Your task to perform on an android device: turn on sleep mode Image 0: 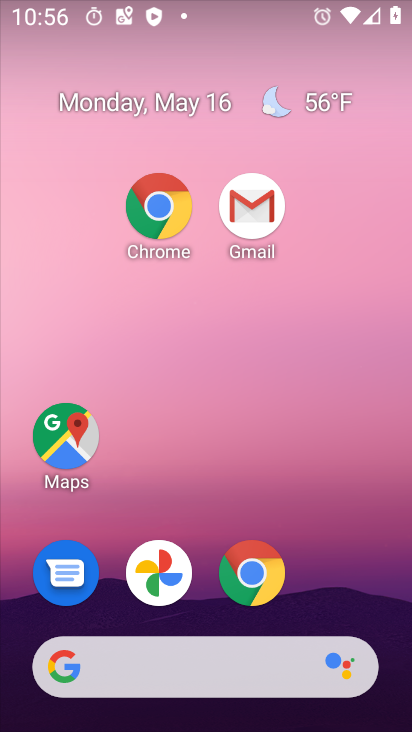
Step 0: drag from (340, 545) to (220, 185)
Your task to perform on an android device: turn on sleep mode Image 1: 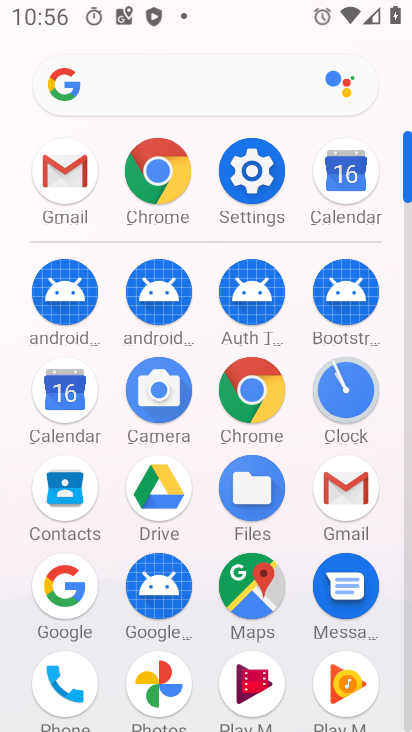
Step 1: drag from (343, 540) to (155, 88)
Your task to perform on an android device: turn on sleep mode Image 2: 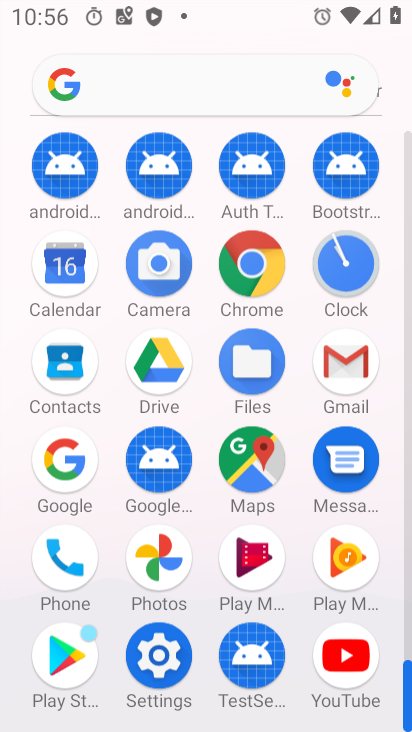
Step 2: click (234, 107)
Your task to perform on an android device: turn on sleep mode Image 3: 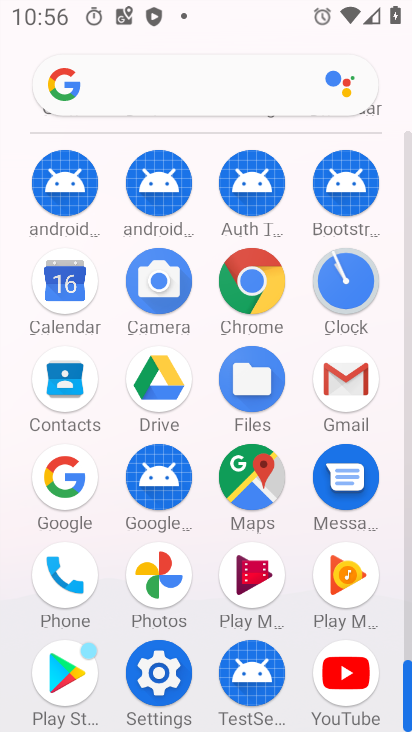
Step 3: drag from (363, 540) to (229, 110)
Your task to perform on an android device: turn on sleep mode Image 4: 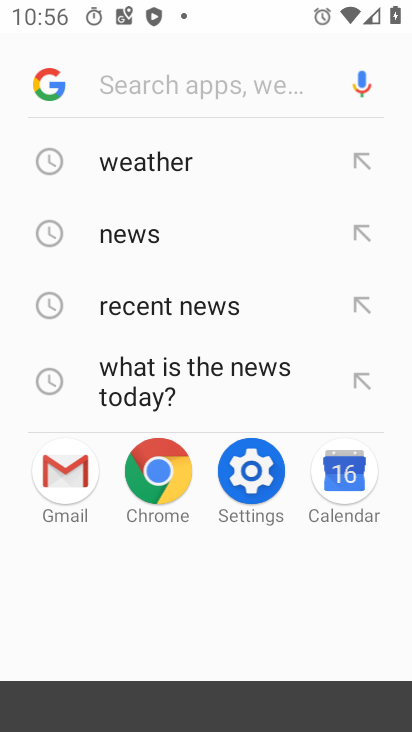
Step 4: drag from (309, 501) to (225, 145)
Your task to perform on an android device: turn on sleep mode Image 5: 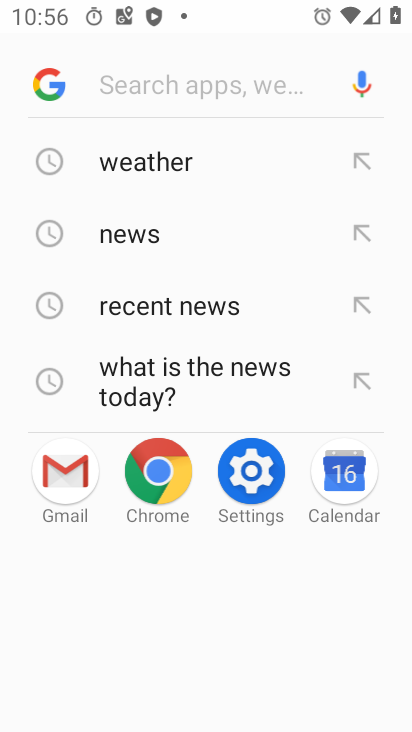
Step 5: drag from (323, 515) to (243, 216)
Your task to perform on an android device: turn on sleep mode Image 6: 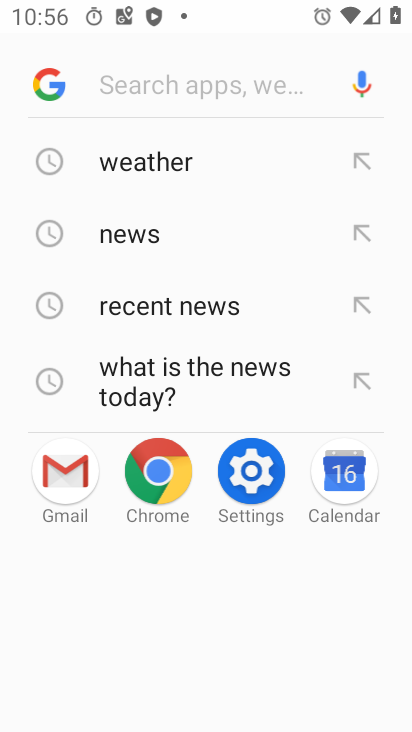
Step 6: press back button
Your task to perform on an android device: turn on sleep mode Image 7: 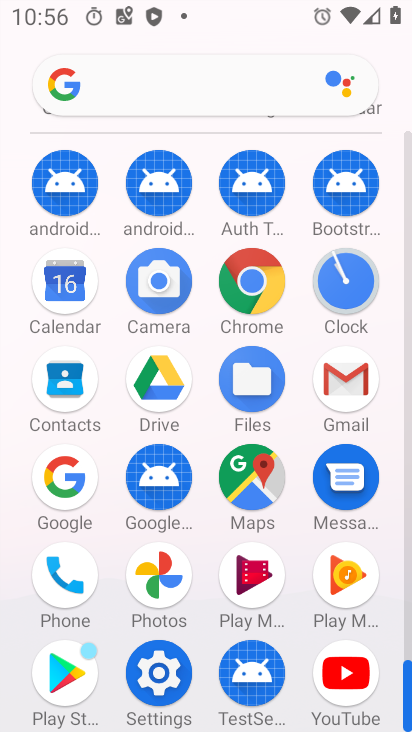
Step 7: press home button
Your task to perform on an android device: turn on sleep mode Image 8: 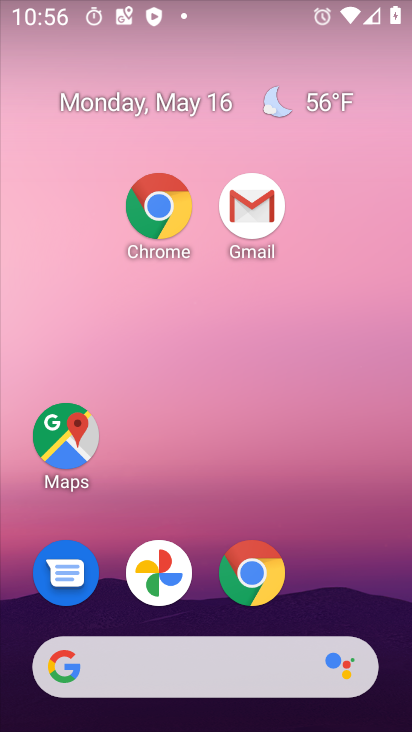
Step 8: drag from (343, 623) to (119, 58)
Your task to perform on an android device: turn on sleep mode Image 9: 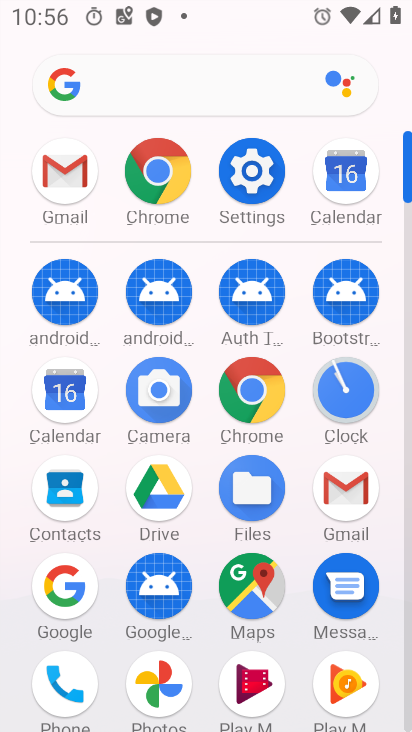
Step 9: click (195, 246)
Your task to perform on an android device: turn on sleep mode Image 10: 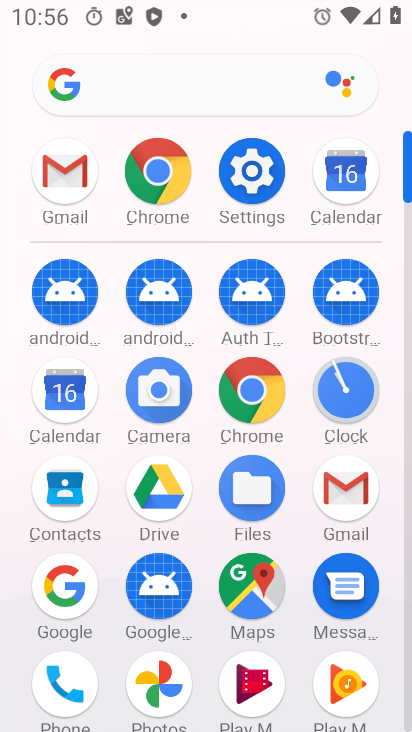
Step 10: click (254, 172)
Your task to perform on an android device: turn on sleep mode Image 11: 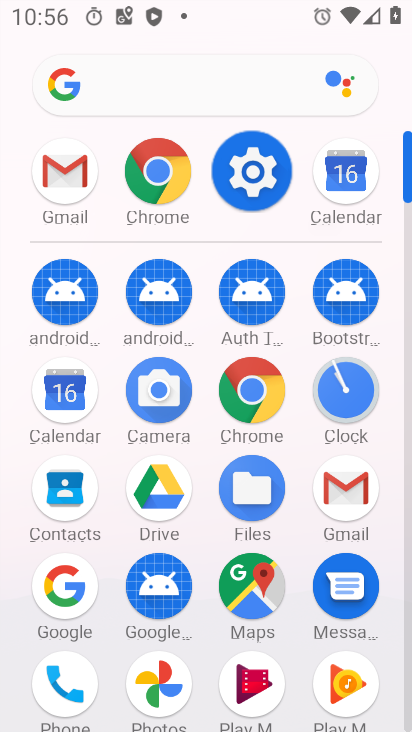
Step 11: click (253, 172)
Your task to perform on an android device: turn on sleep mode Image 12: 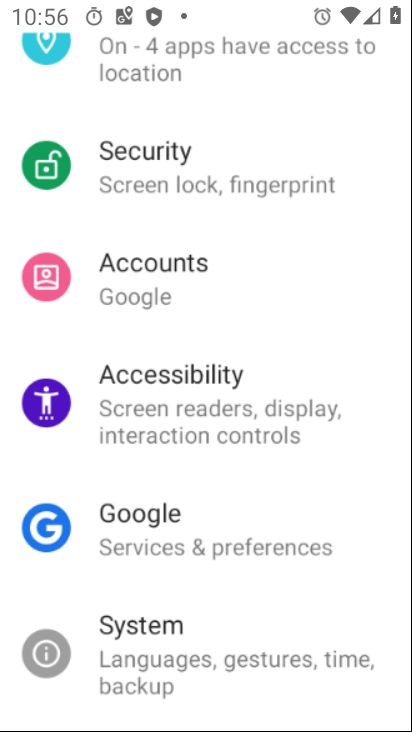
Step 12: click (251, 160)
Your task to perform on an android device: turn on sleep mode Image 13: 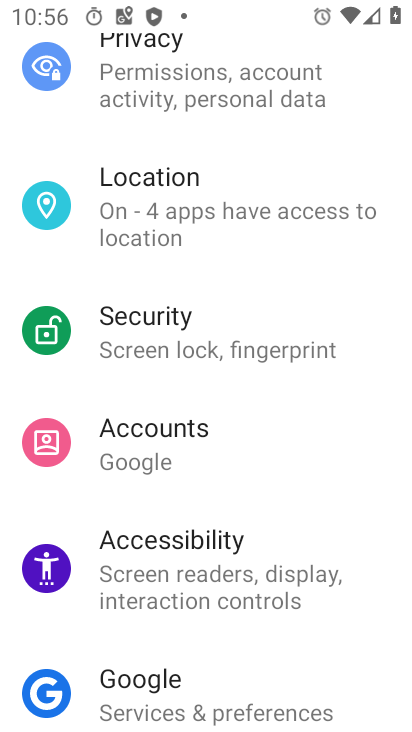
Step 13: drag from (142, 155) to (166, 380)
Your task to perform on an android device: turn on sleep mode Image 14: 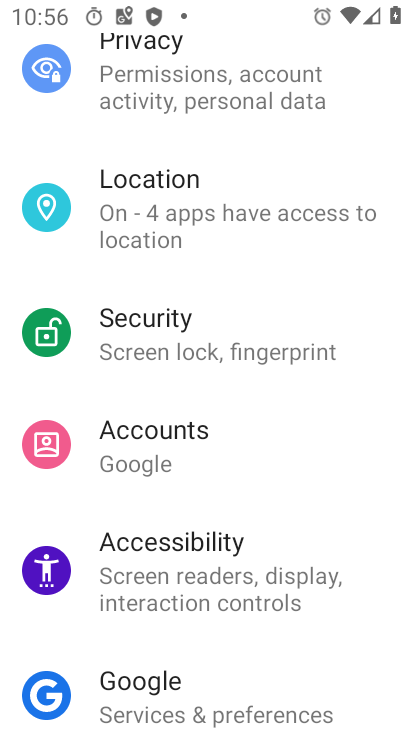
Step 14: drag from (163, 234) to (167, 382)
Your task to perform on an android device: turn on sleep mode Image 15: 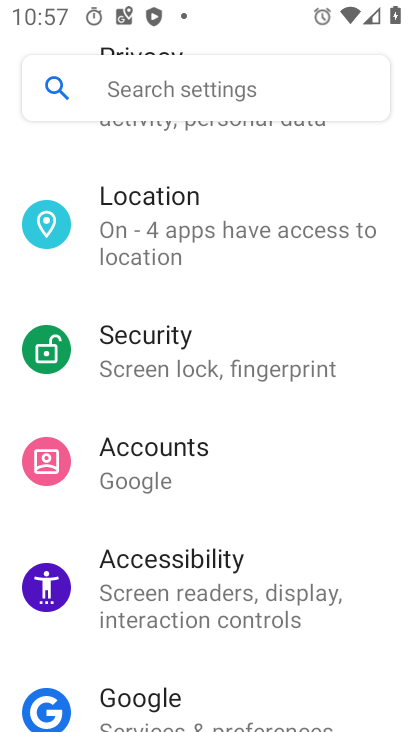
Step 15: drag from (171, 308) to (190, 525)
Your task to perform on an android device: turn on sleep mode Image 16: 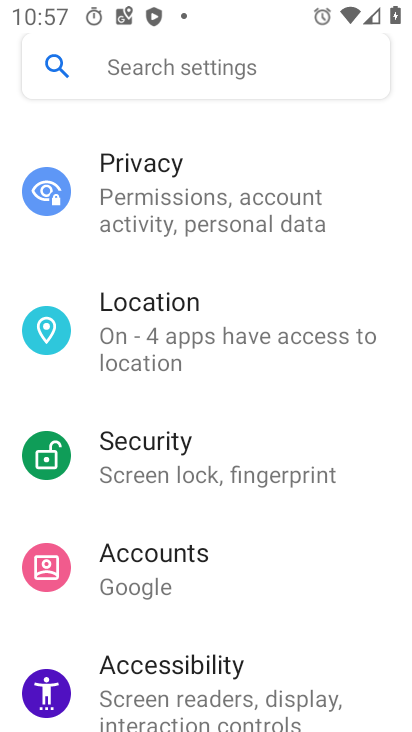
Step 16: drag from (159, 235) to (231, 628)
Your task to perform on an android device: turn on sleep mode Image 17: 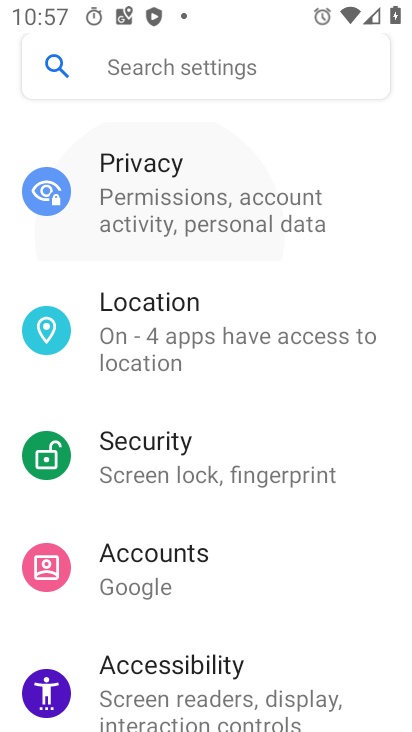
Step 17: drag from (162, 251) to (219, 496)
Your task to perform on an android device: turn on sleep mode Image 18: 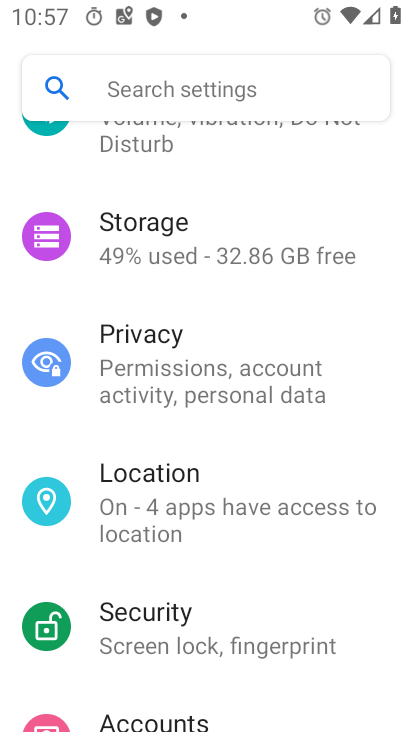
Step 18: drag from (203, 405) to (217, 477)
Your task to perform on an android device: turn on sleep mode Image 19: 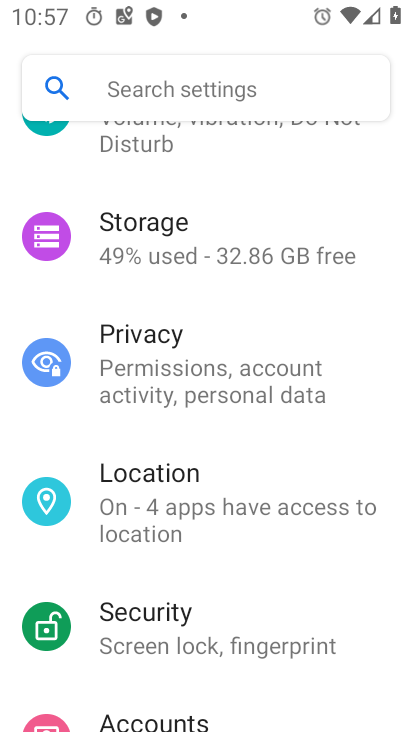
Step 19: drag from (186, 236) to (289, 642)
Your task to perform on an android device: turn on sleep mode Image 20: 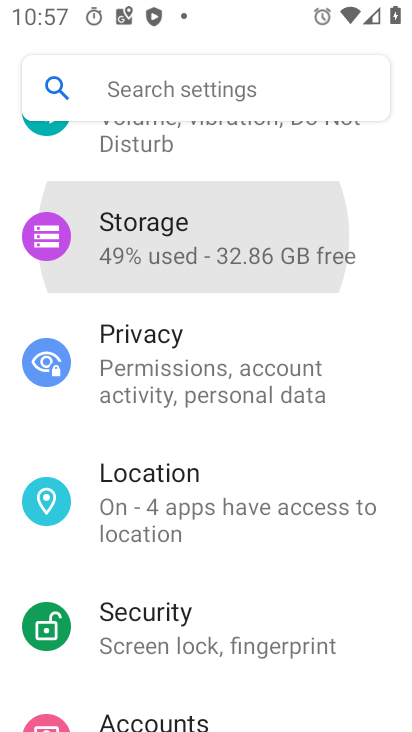
Step 20: drag from (145, 210) to (280, 660)
Your task to perform on an android device: turn on sleep mode Image 21: 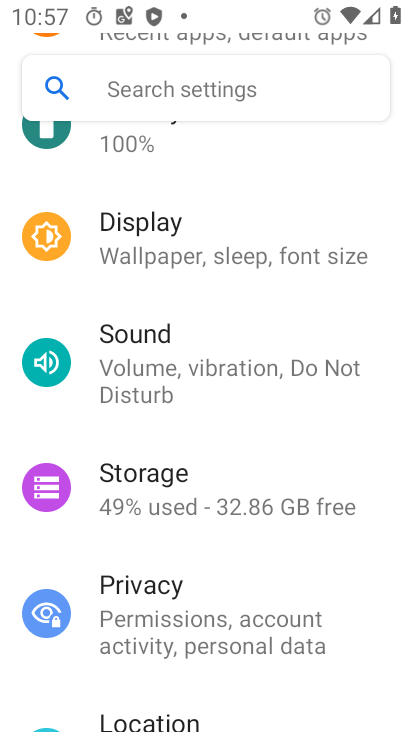
Step 21: click (316, 651)
Your task to perform on an android device: turn on sleep mode Image 22: 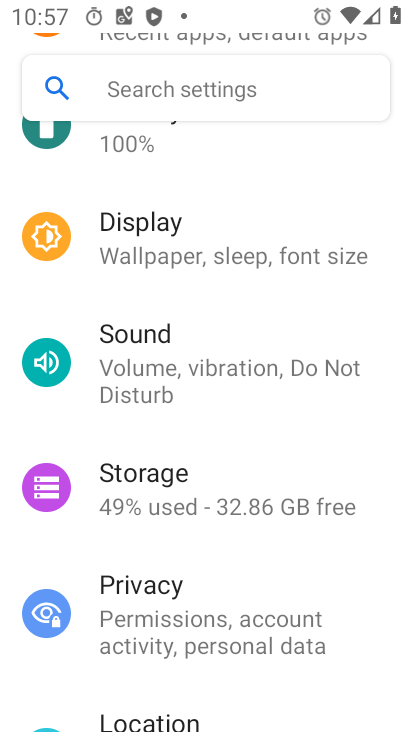
Step 22: click (194, 454)
Your task to perform on an android device: turn on sleep mode Image 23: 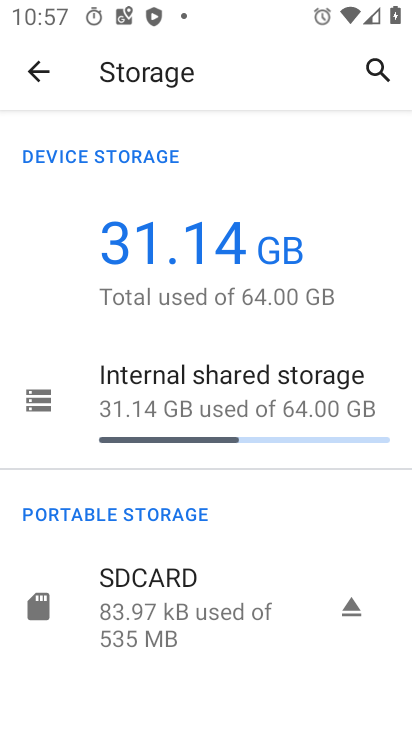
Step 23: drag from (175, 392) to (185, 453)
Your task to perform on an android device: turn on sleep mode Image 24: 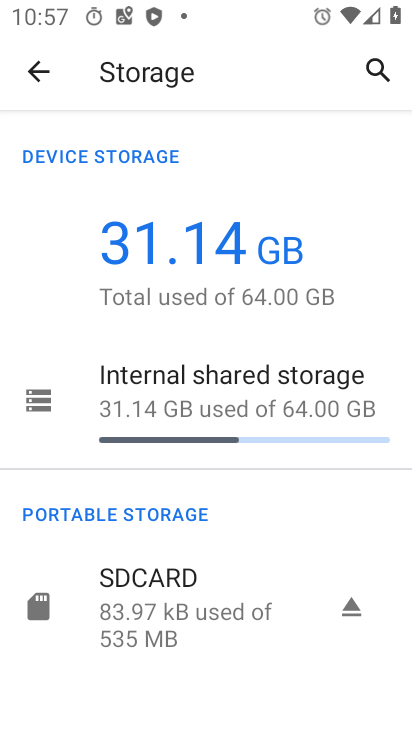
Step 24: click (223, 528)
Your task to perform on an android device: turn on sleep mode Image 25: 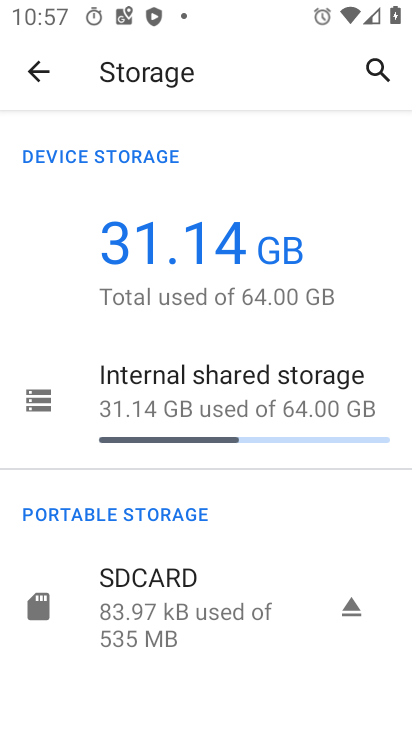
Step 25: click (161, 150)
Your task to perform on an android device: turn on sleep mode Image 26: 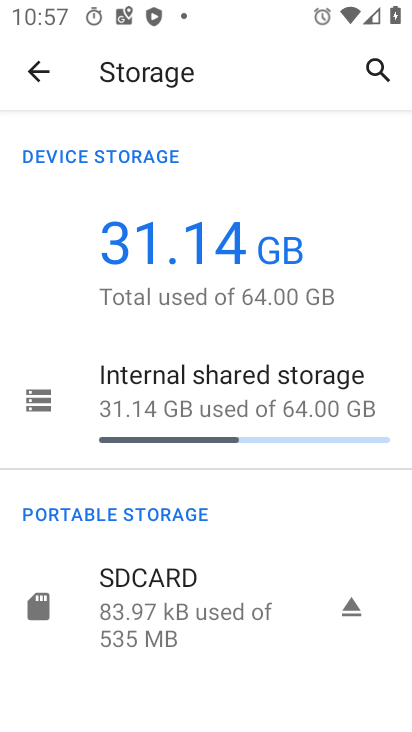
Step 26: click (161, 149)
Your task to perform on an android device: turn on sleep mode Image 27: 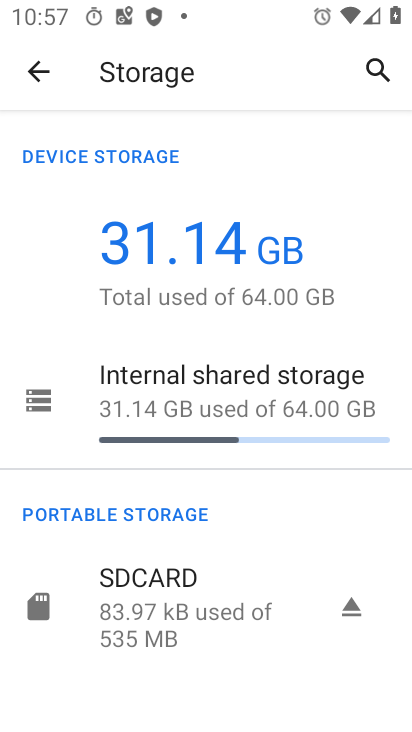
Step 27: click (158, 260)
Your task to perform on an android device: turn on sleep mode Image 28: 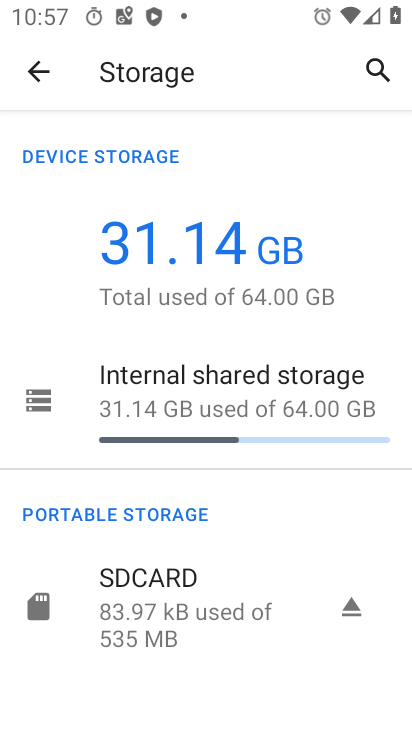
Step 28: click (158, 254)
Your task to perform on an android device: turn on sleep mode Image 29: 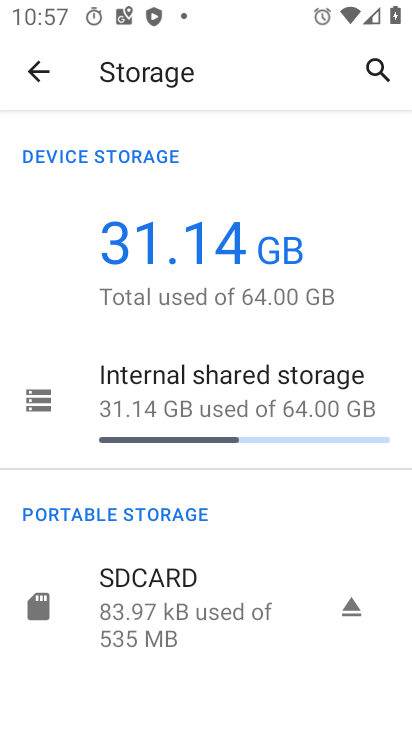
Step 29: click (41, 71)
Your task to perform on an android device: turn on sleep mode Image 30: 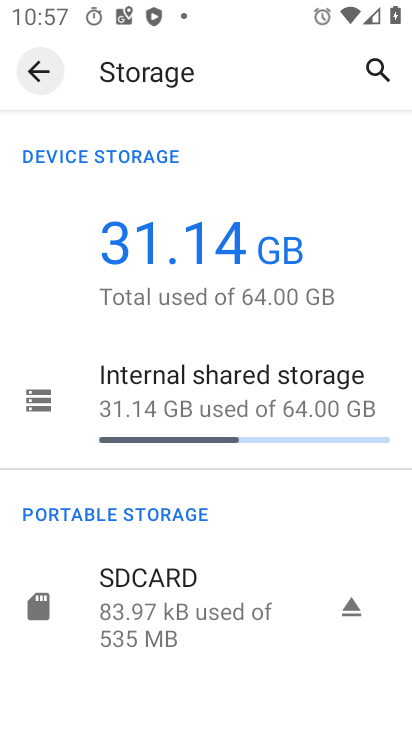
Step 30: click (46, 74)
Your task to perform on an android device: turn on sleep mode Image 31: 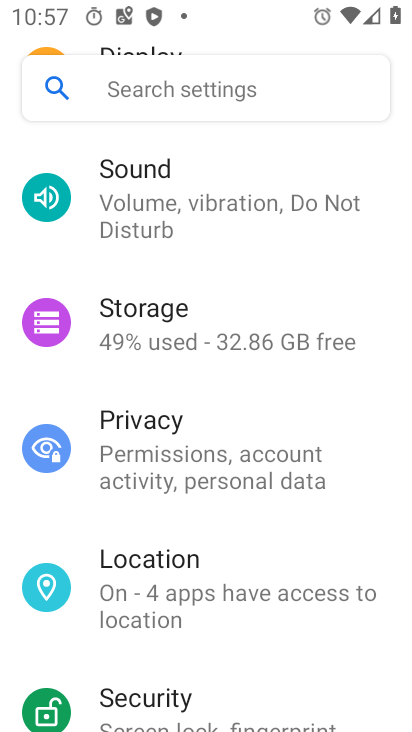
Step 31: click (34, 59)
Your task to perform on an android device: turn on sleep mode Image 32: 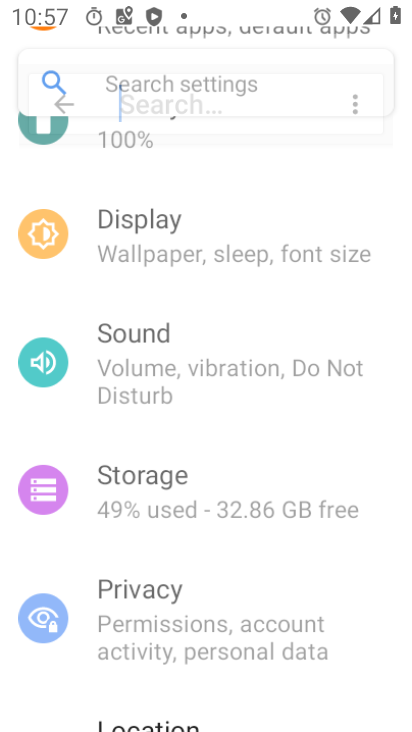
Step 32: click (167, 207)
Your task to perform on an android device: turn on sleep mode Image 33: 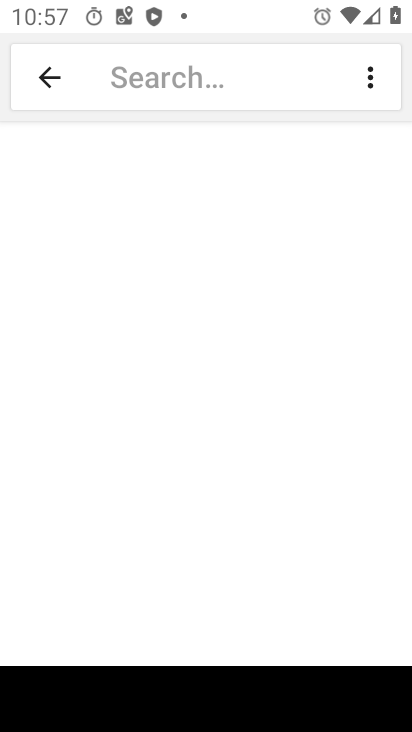
Step 33: click (177, 202)
Your task to perform on an android device: turn on sleep mode Image 34: 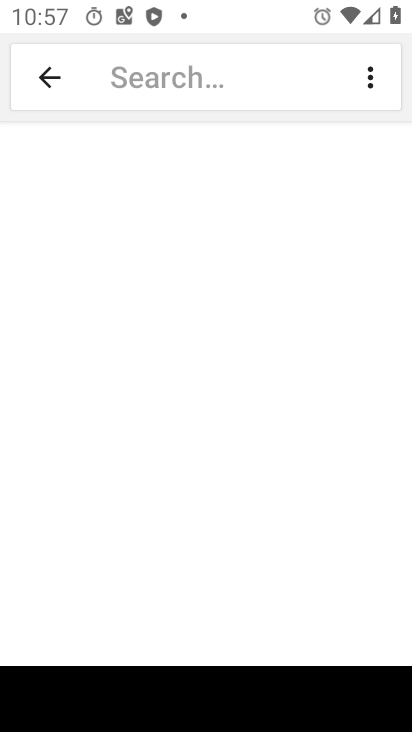
Step 34: click (180, 204)
Your task to perform on an android device: turn on sleep mode Image 35: 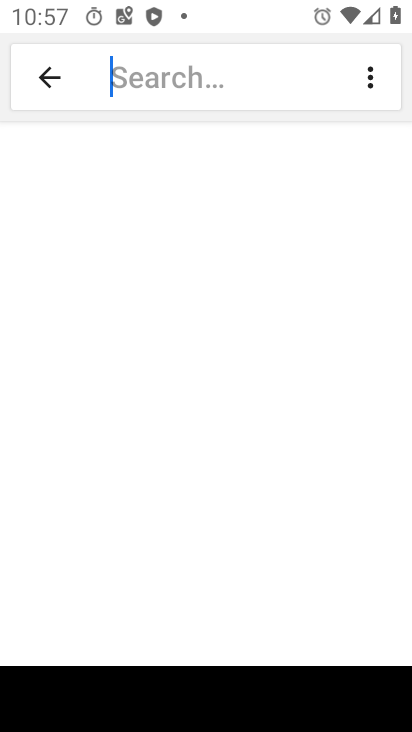
Step 35: click (179, 201)
Your task to perform on an android device: turn on sleep mode Image 36: 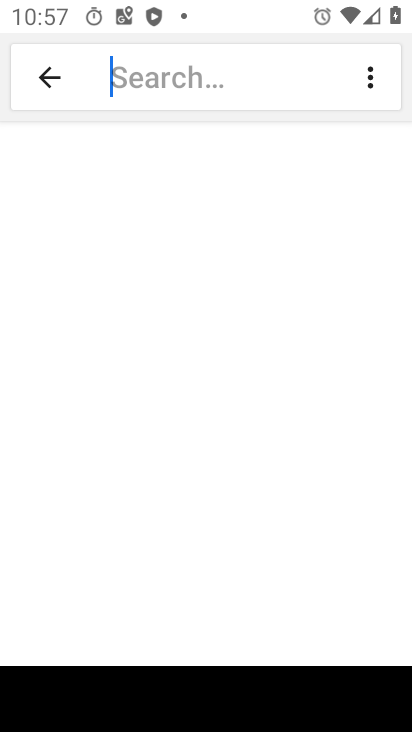
Step 36: click (176, 198)
Your task to perform on an android device: turn on sleep mode Image 37: 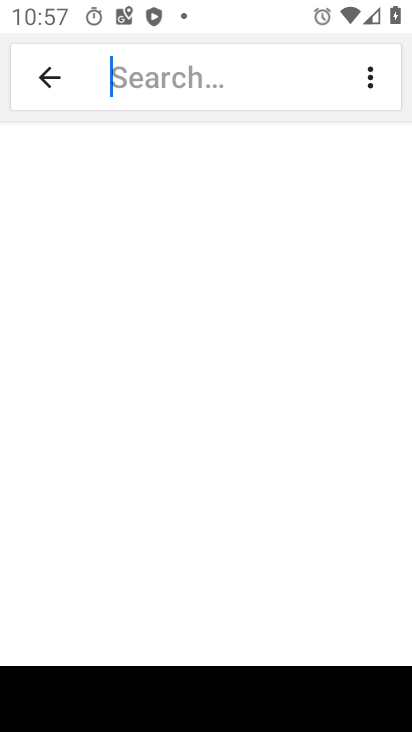
Step 37: click (175, 197)
Your task to perform on an android device: turn on sleep mode Image 38: 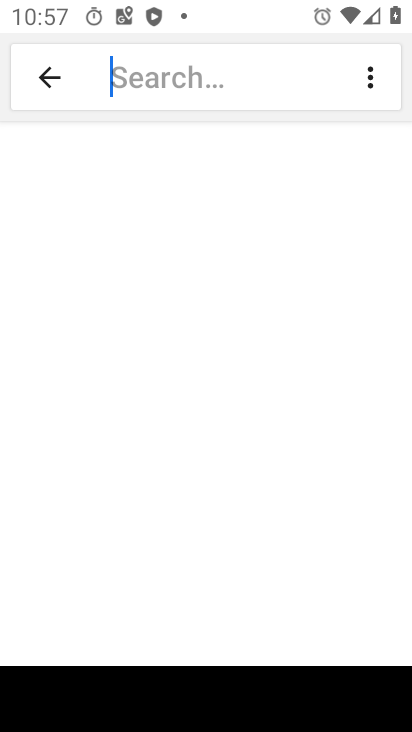
Step 38: task complete